Your task to perform on an android device: Open network settings Image 0: 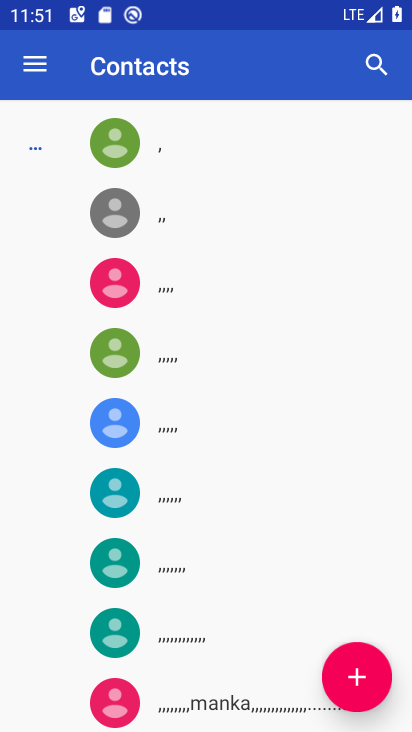
Step 0: press home button
Your task to perform on an android device: Open network settings Image 1: 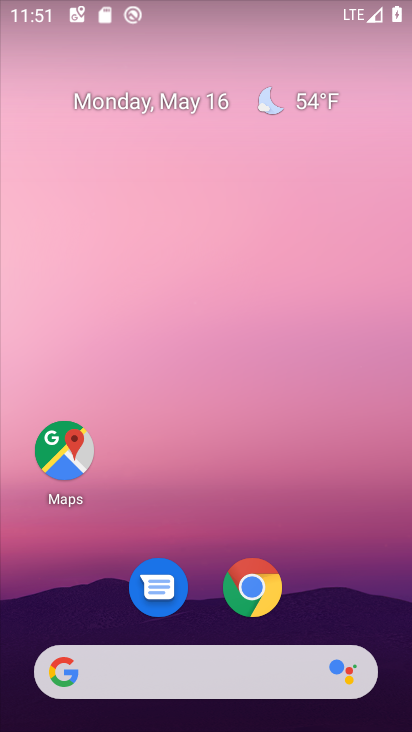
Step 1: drag from (208, 615) to (210, 14)
Your task to perform on an android device: Open network settings Image 2: 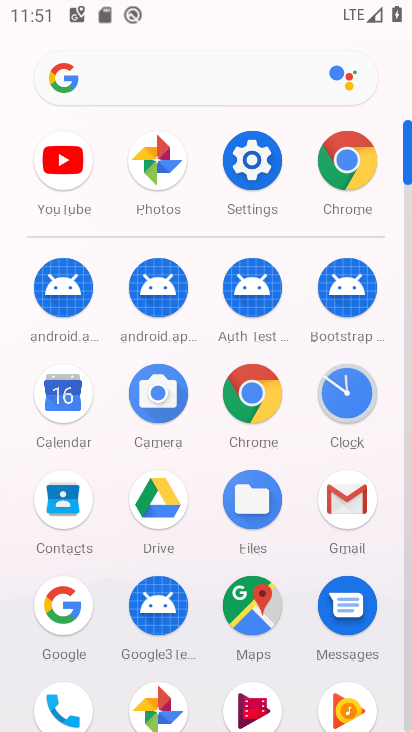
Step 2: click (247, 166)
Your task to perform on an android device: Open network settings Image 3: 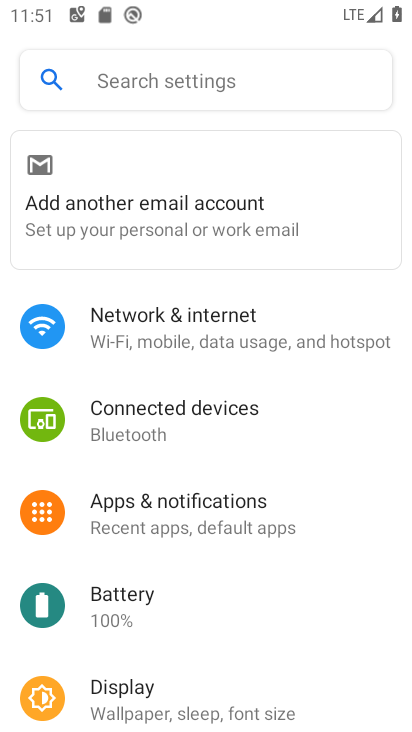
Step 3: click (211, 331)
Your task to perform on an android device: Open network settings Image 4: 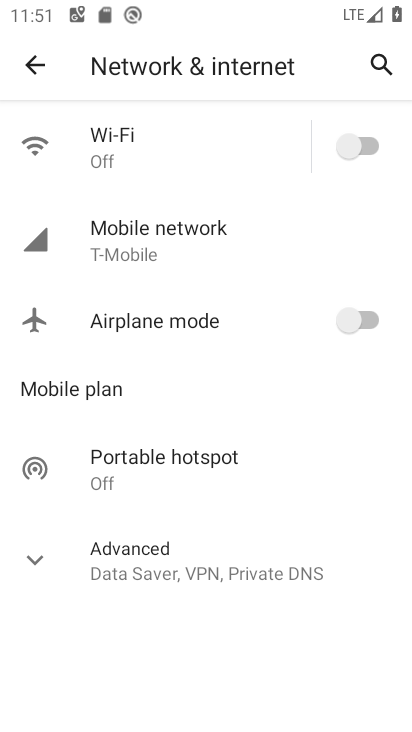
Step 4: task complete